Your task to perform on an android device: Clear the cart on amazon. Search for "logitech g pro" on amazon, select the first entry, and add it to the cart. Image 0: 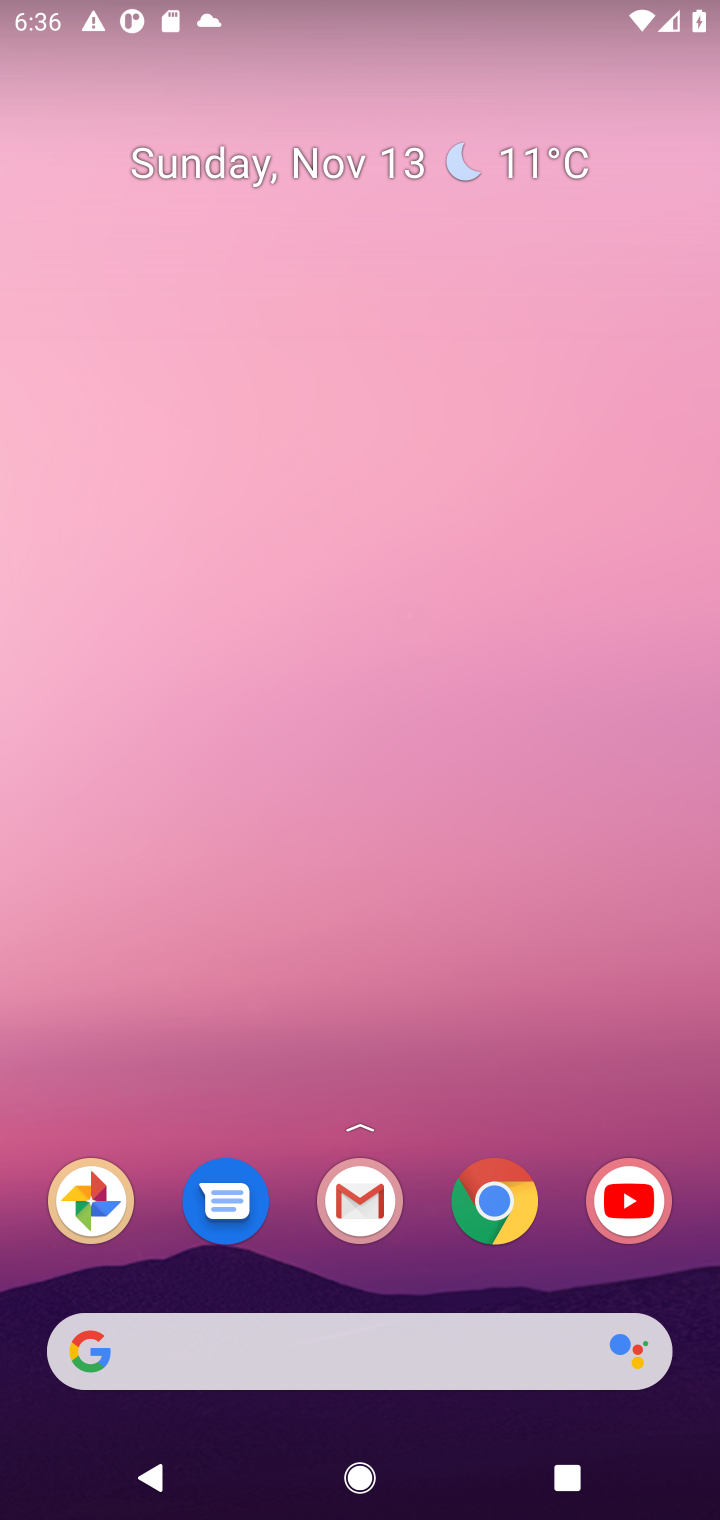
Step 0: drag from (452, 1108) to (507, 20)
Your task to perform on an android device: Clear the cart on amazon. Search for "logitech g pro" on amazon, select the first entry, and add it to the cart. Image 1: 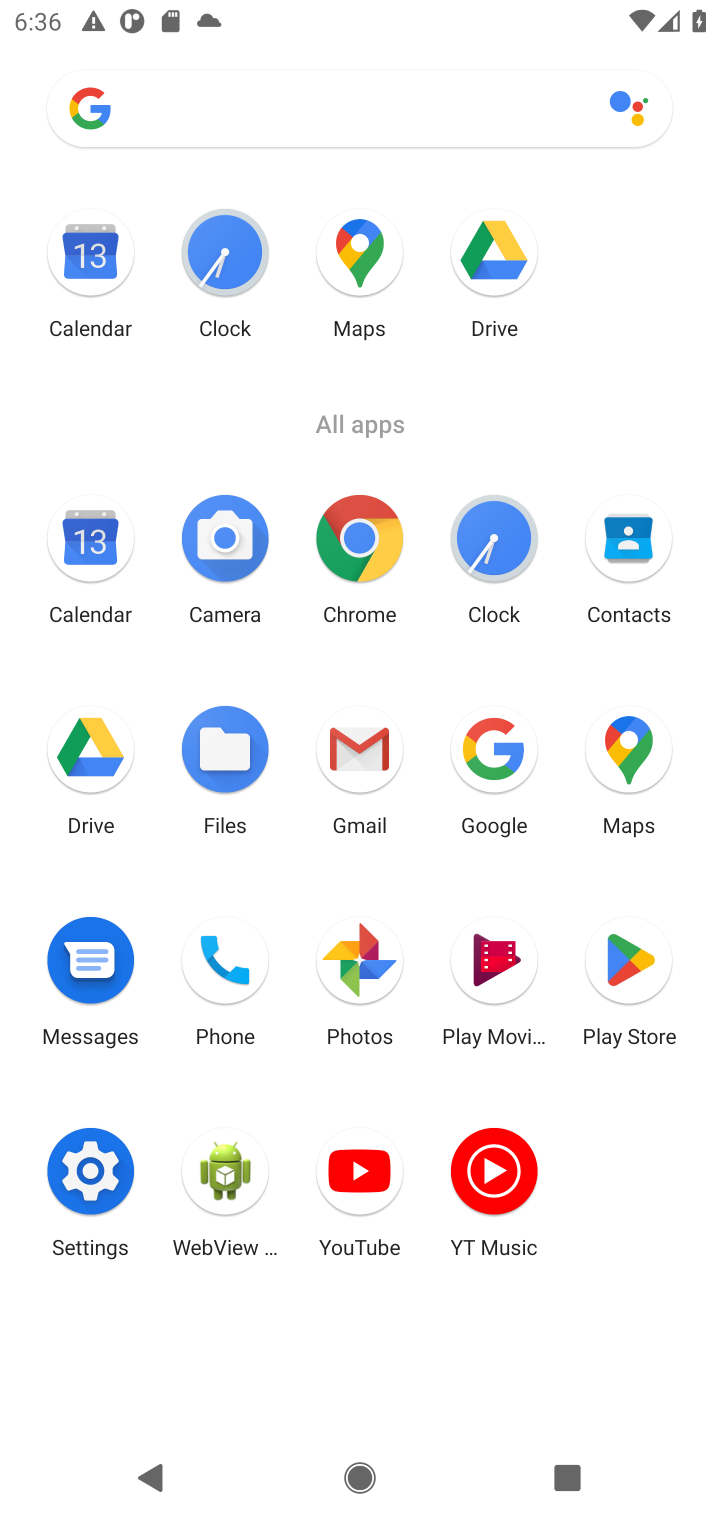
Step 1: click (372, 536)
Your task to perform on an android device: Clear the cart on amazon. Search for "logitech g pro" on amazon, select the first entry, and add it to the cart. Image 2: 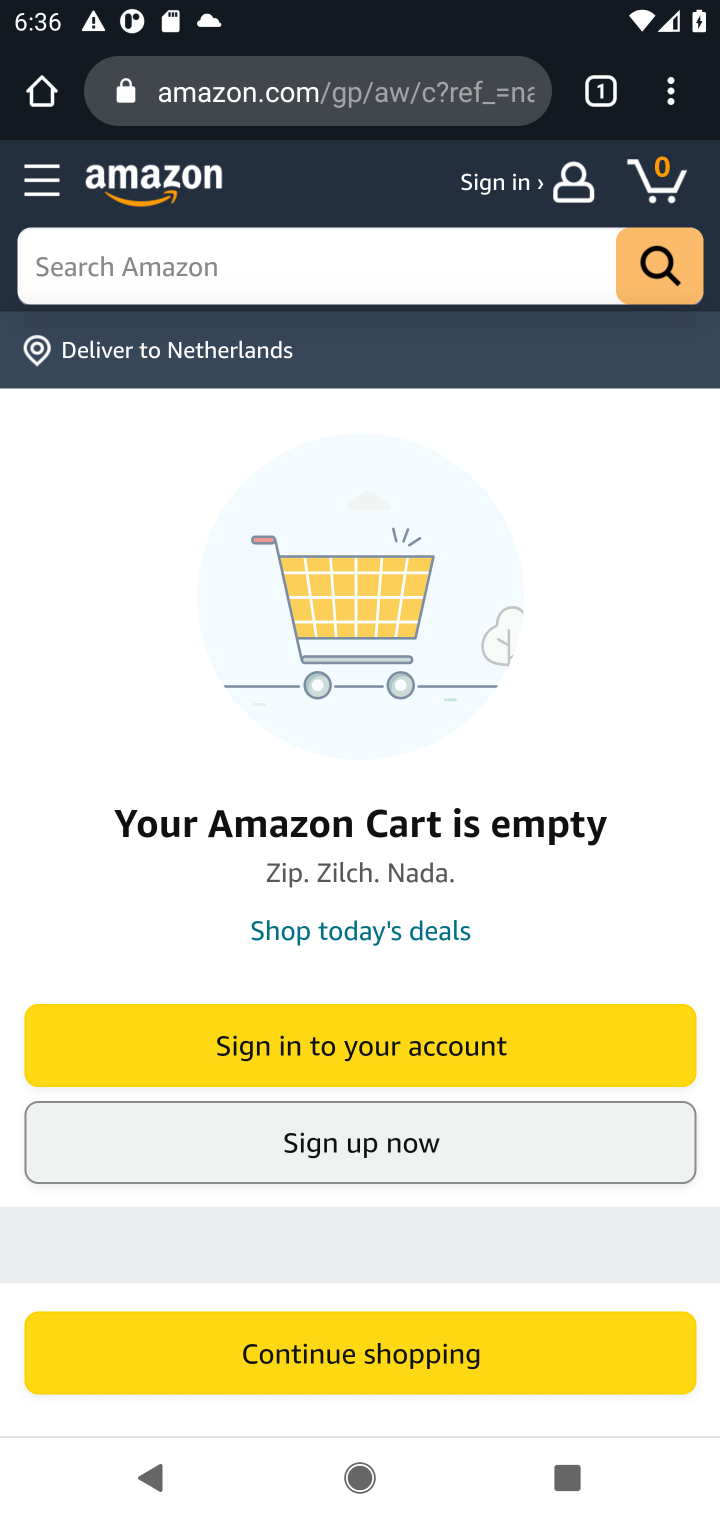
Step 2: click (450, 99)
Your task to perform on an android device: Clear the cart on amazon. Search for "logitech g pro" on amazon, select the first entry, and add it to the cart. Image 3: 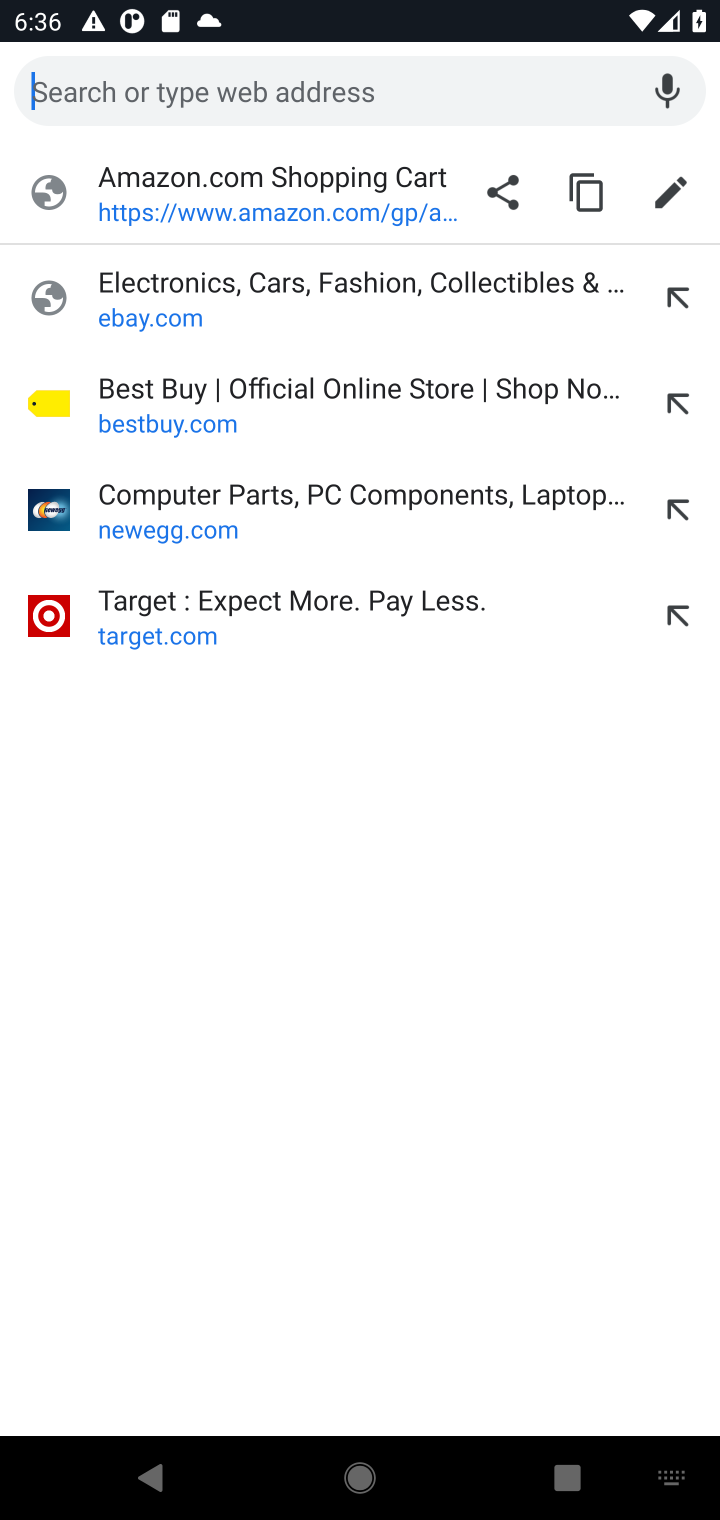
Step 3: type "amazon.com"
Your task to perform on an android device: Clear the cart on amazon. Search for "logitech g pro" on amazon, select the first entry, and add it to the cart. Image 4: 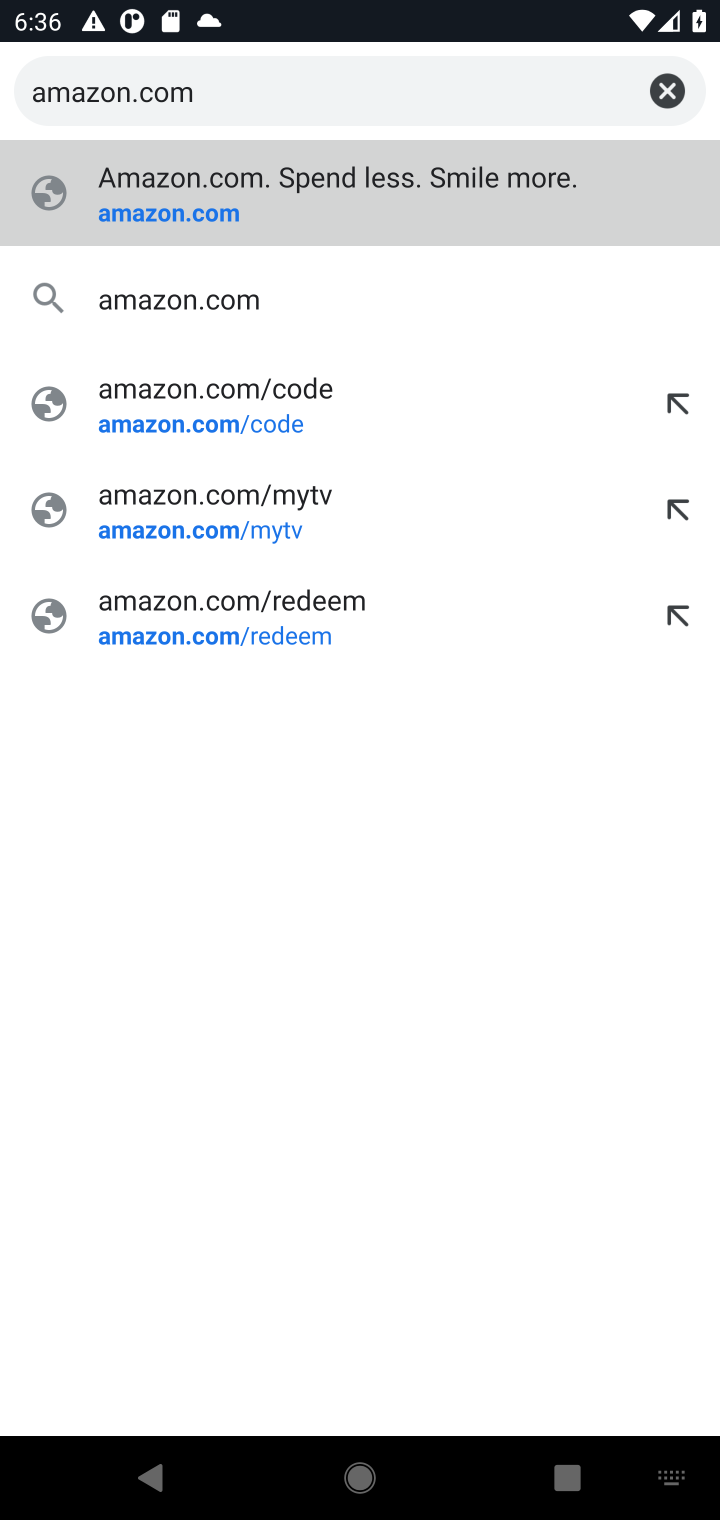
Step 4: press enter
Your task to perform on an android device: Clear the cart on amazon. Search for "logitech g pro" on amazon, select the first entry, and add it to the cart. Image 5: 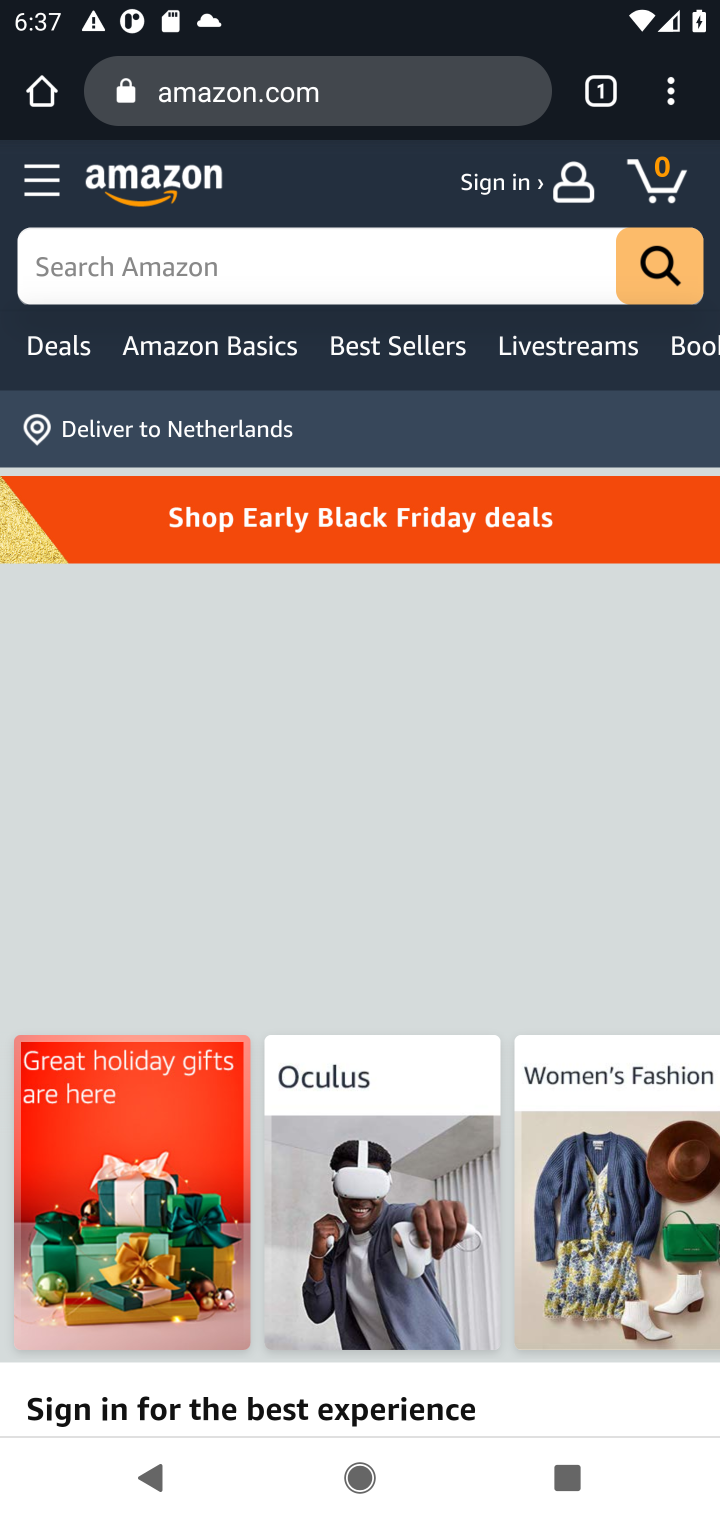
Step 5: click (675, 175)
Your task to perform on an android device: Clear the cart on amazon. Search for "logitech g pro" on amazon, select the first entry, and add it to the cart. Image 6: 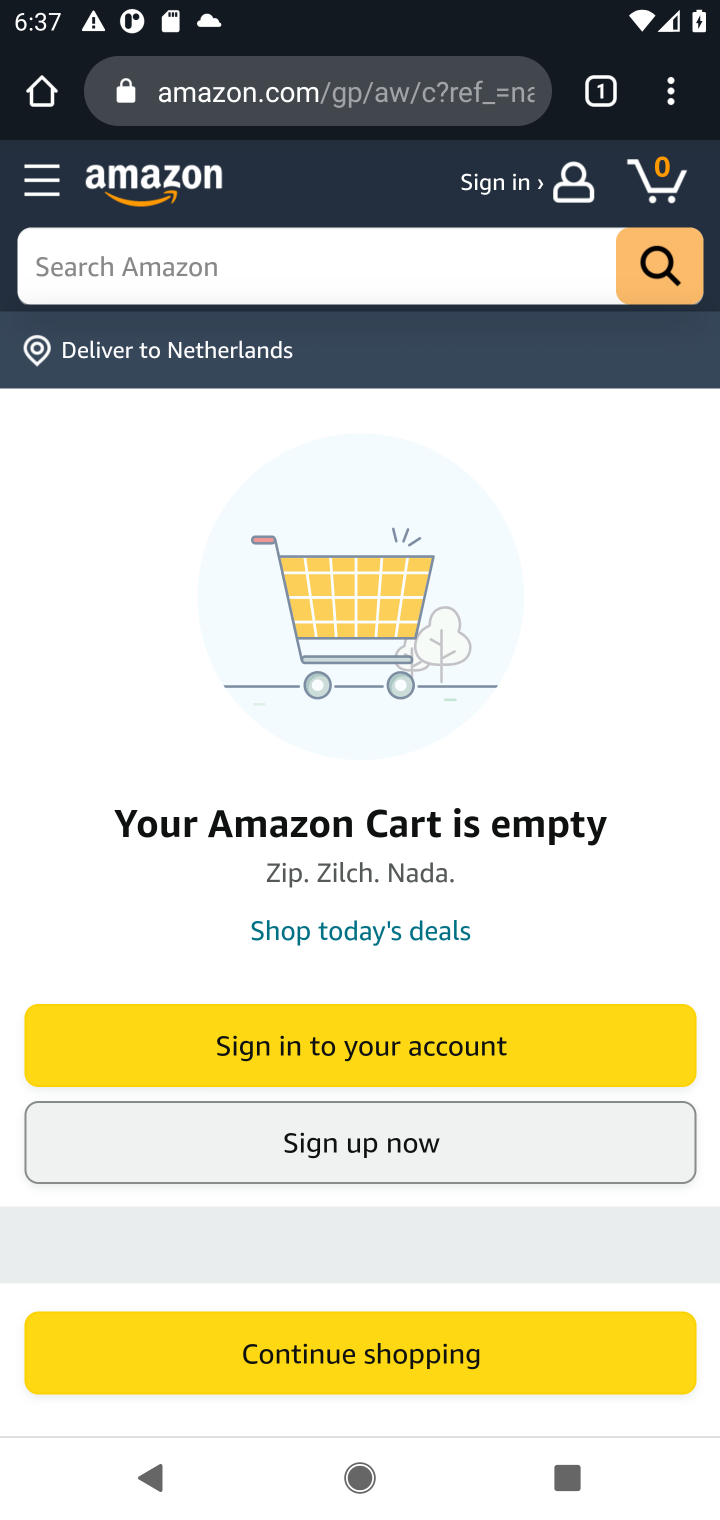
Step 6: click (653, 184)
Your task to perform on an android device: Clear the cart on amazon. Search for "logitech g pro" on amazon, select the first entry, and add it to the cart. Image 7: 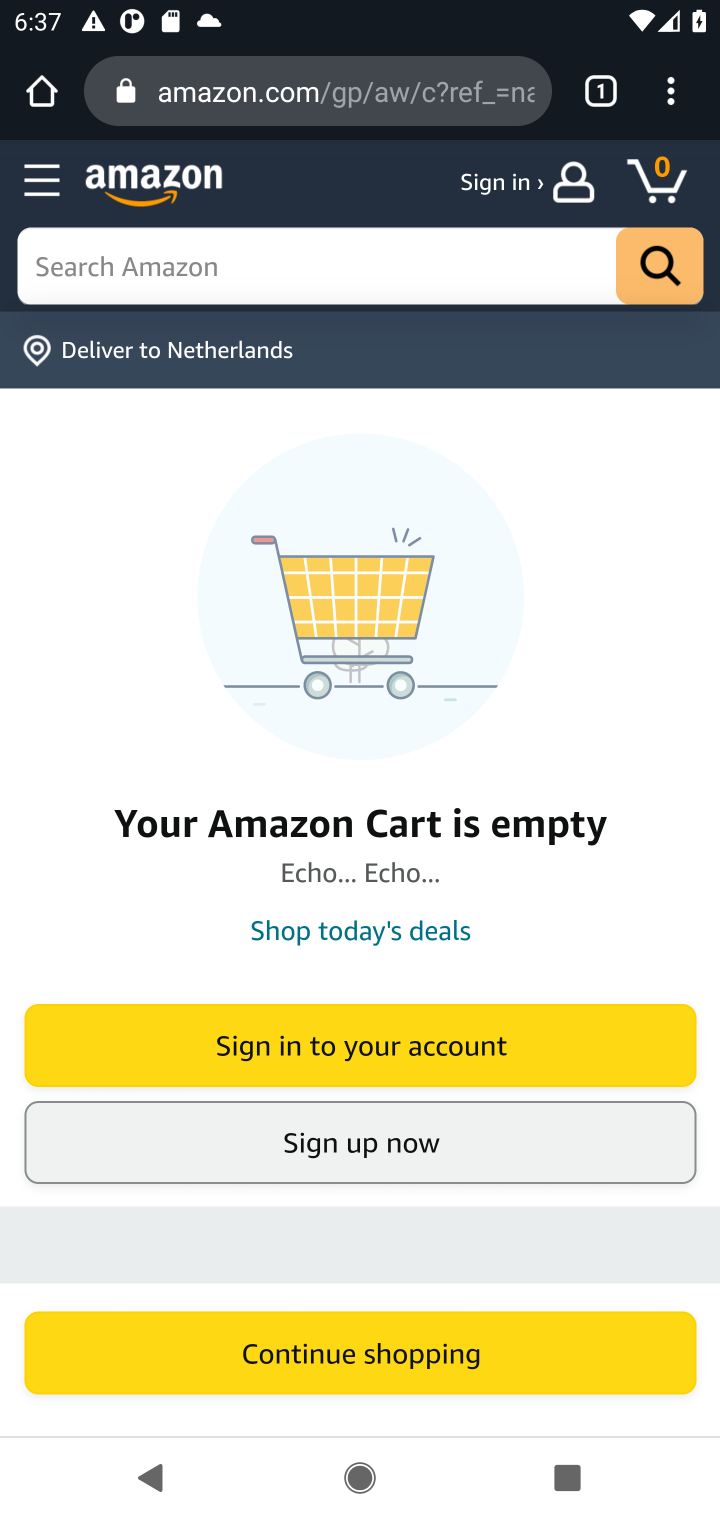
Step 7: click (334, 251)
Your task to perform on an android device: Clear the cart on amazon. Search for "logitech g pro" on amazon, select the first entry, and add it to the cart. Image 8: 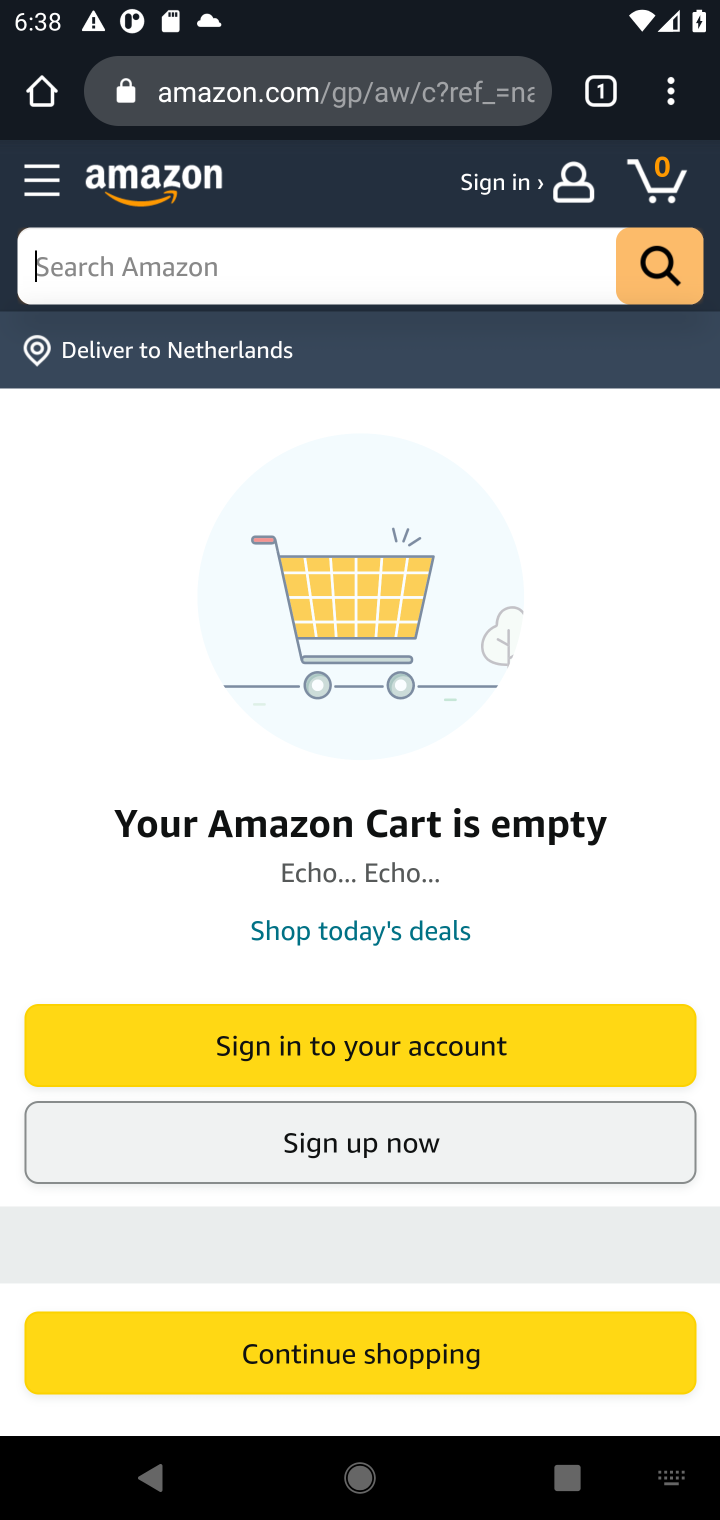
Step 8: type "logitech g pro"
Your task to perform on an android device: Clear the cart on amazon. Search for "logitech g pro" on amazon, select the first entry, and add it to the cart. Image 9: 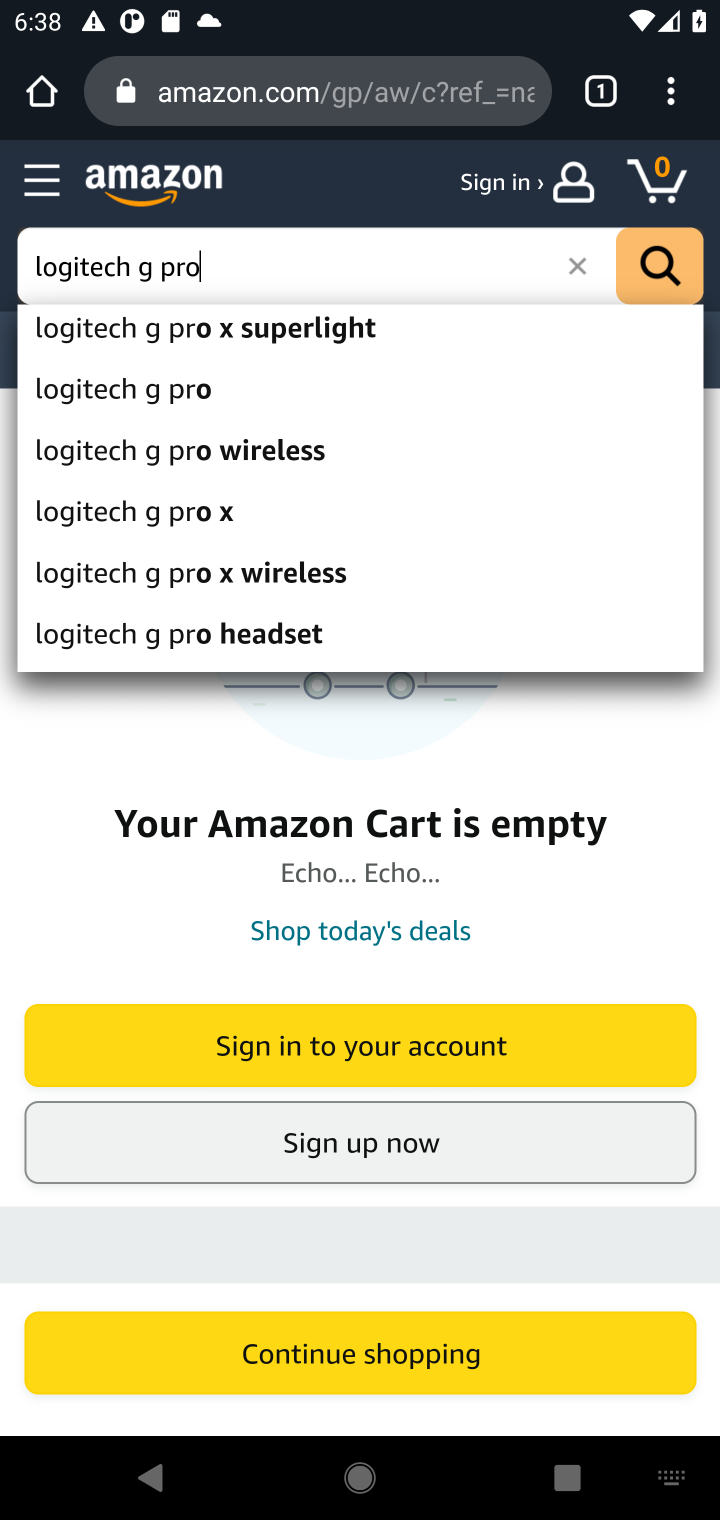
Step 9: press enter
Your task to perform on an android device: Clear the cart on amazon. Search for "logitech g pro" on amazon, select the first entry, and add it to the cart. Image 10: 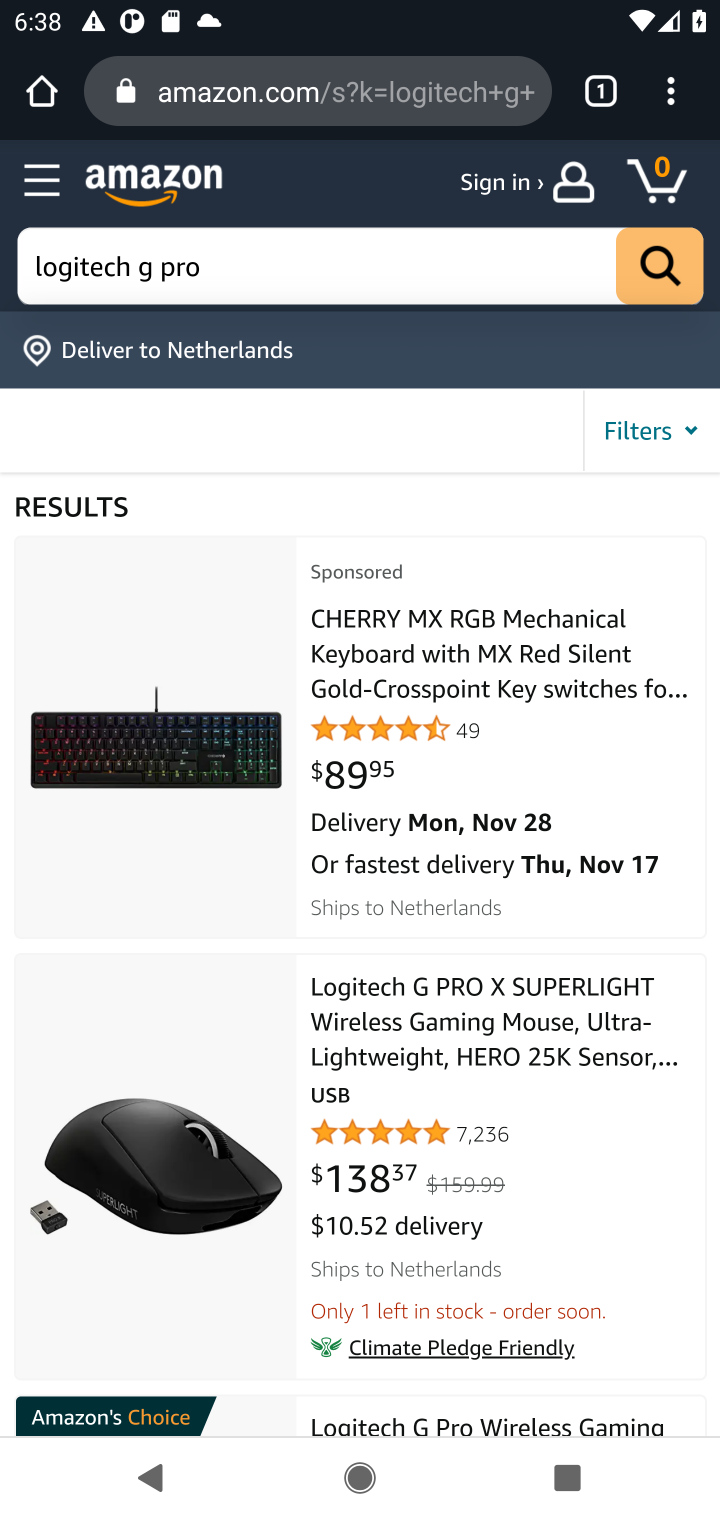
Step 10: click (490, 1004)
Your task to perform on an android device: Clear the cart on amazon. Search for "logitech g pro" on amazon, select the first entry, and add it to the cart. Image 11: 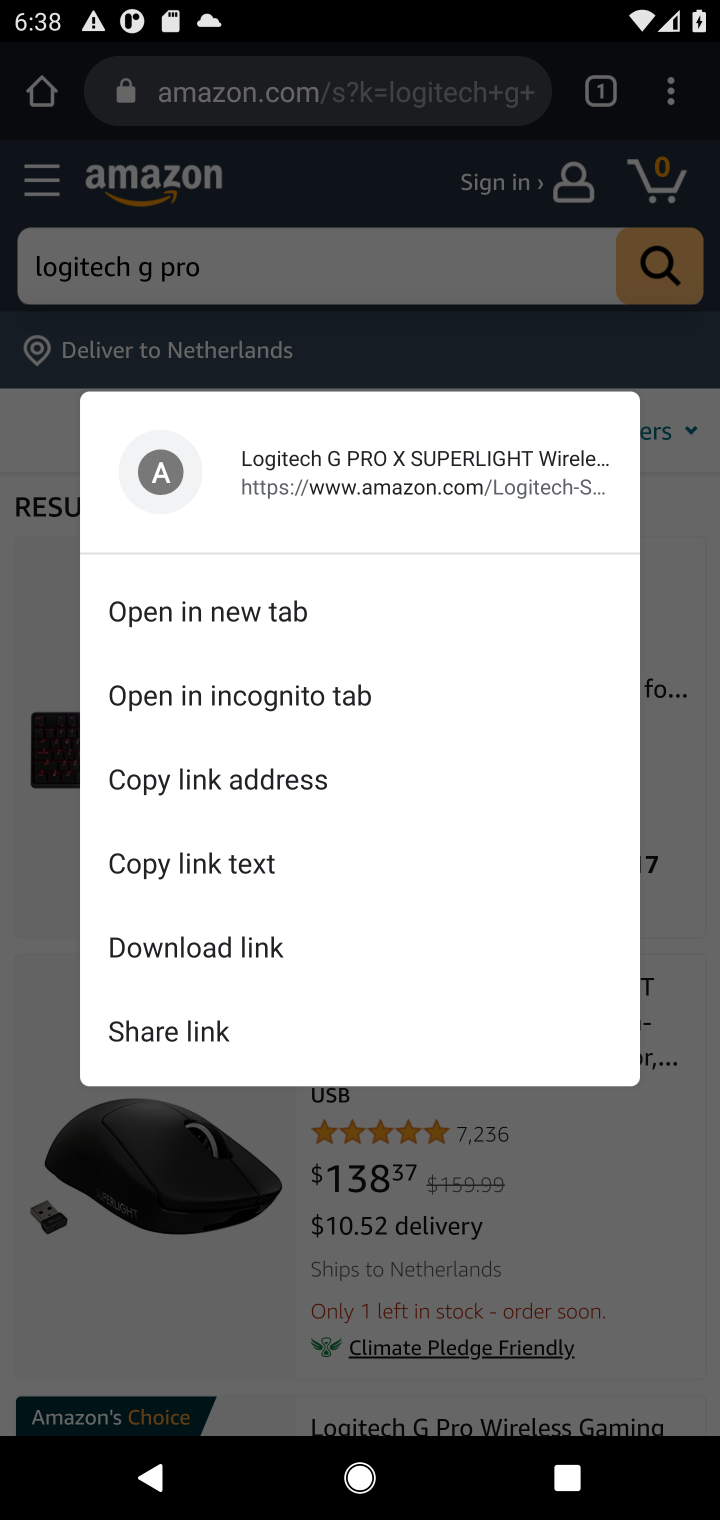
Step 11: click (419, 1173)
Your task to perform on an android device: Clear the cart on amazon. Search for "logitech g pro" on amazon, select the first entry, and add it to the cart. Image 12: 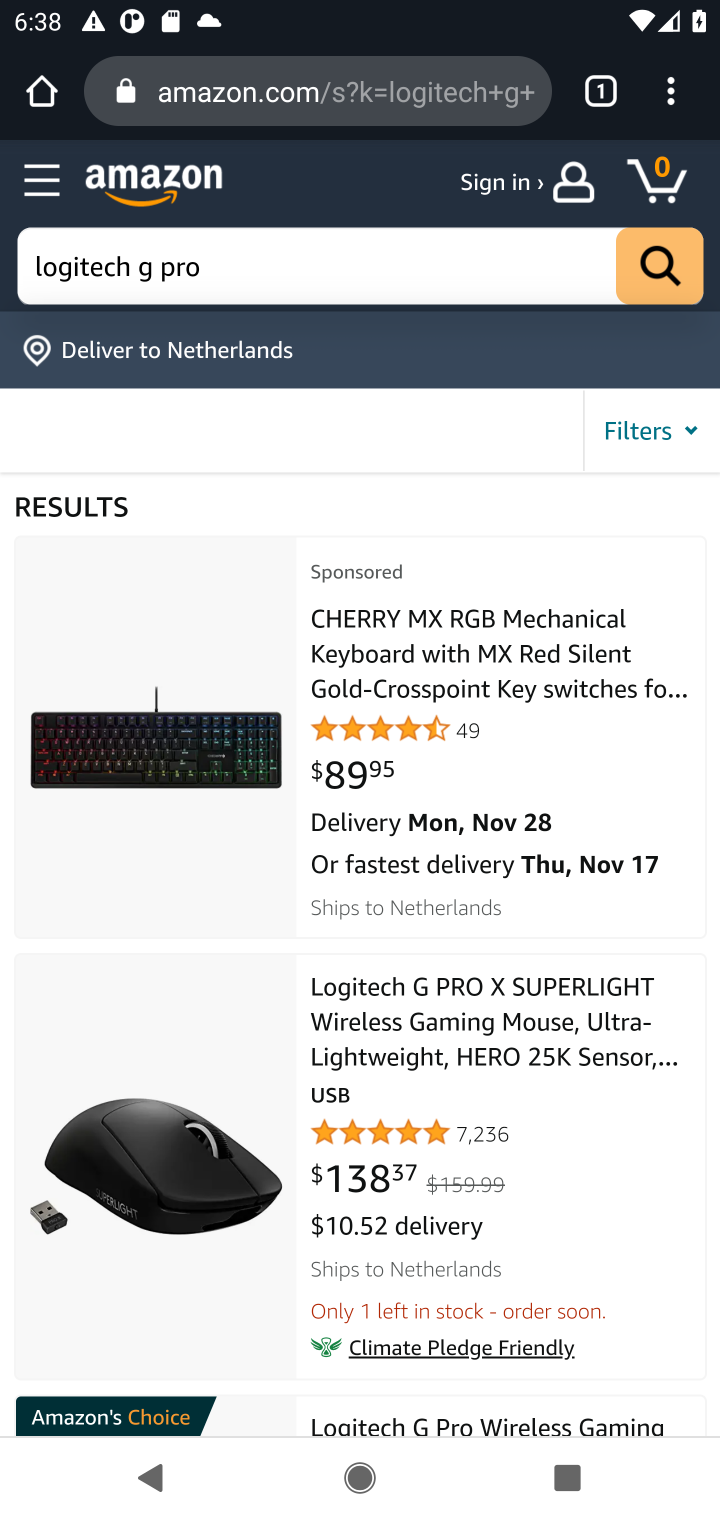
Step 12: click (453, 1036)
Your task to perform on an android device: Clear the cart on amazon. Search for "logitech g pro" on amazon, select the first entry, and add it to the cart. Image 13: 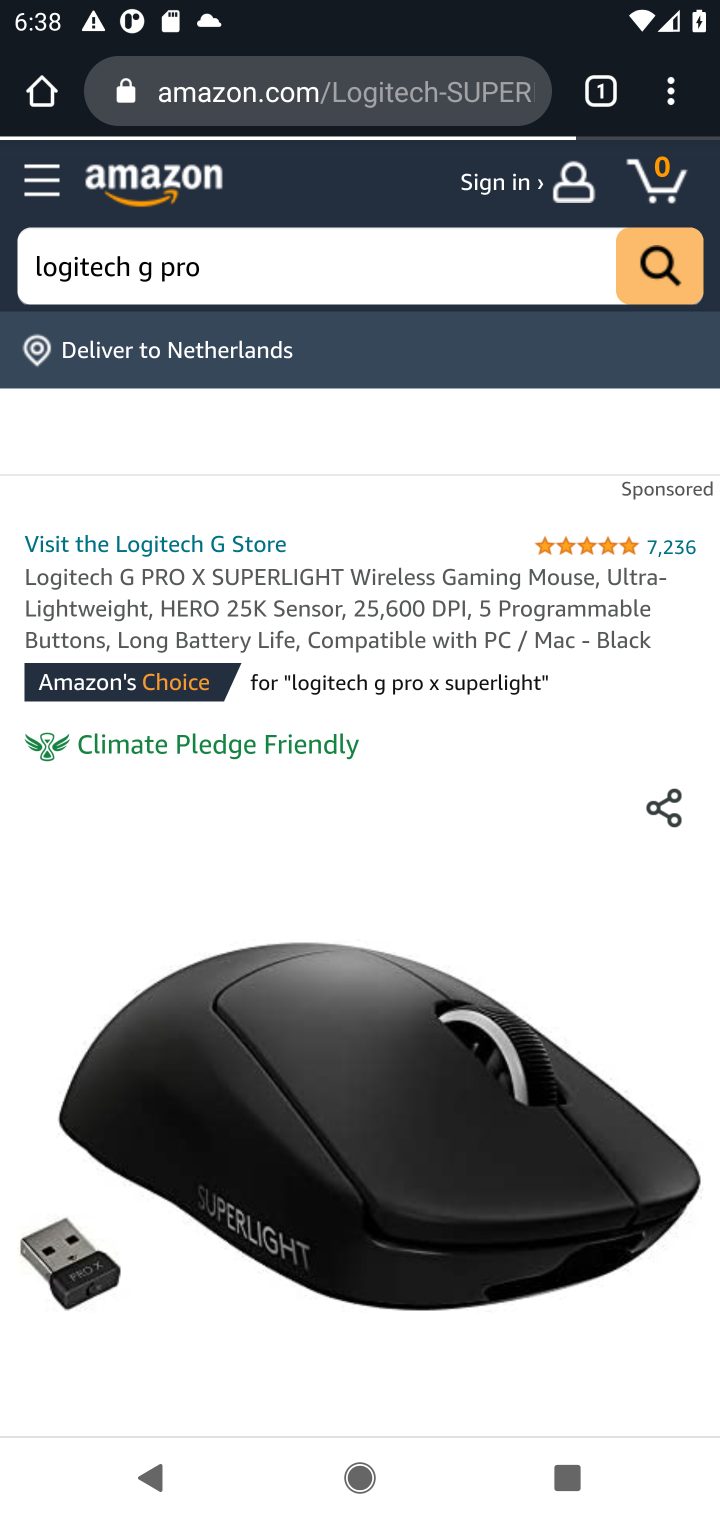
Step 13: drag from (343, 1010) to (367, 370)
Your task to perform on an android device: Clear the cart on amazon. Search for "logitech g pro" on amazon, select the first entry, and add it to the cart. Image 14: 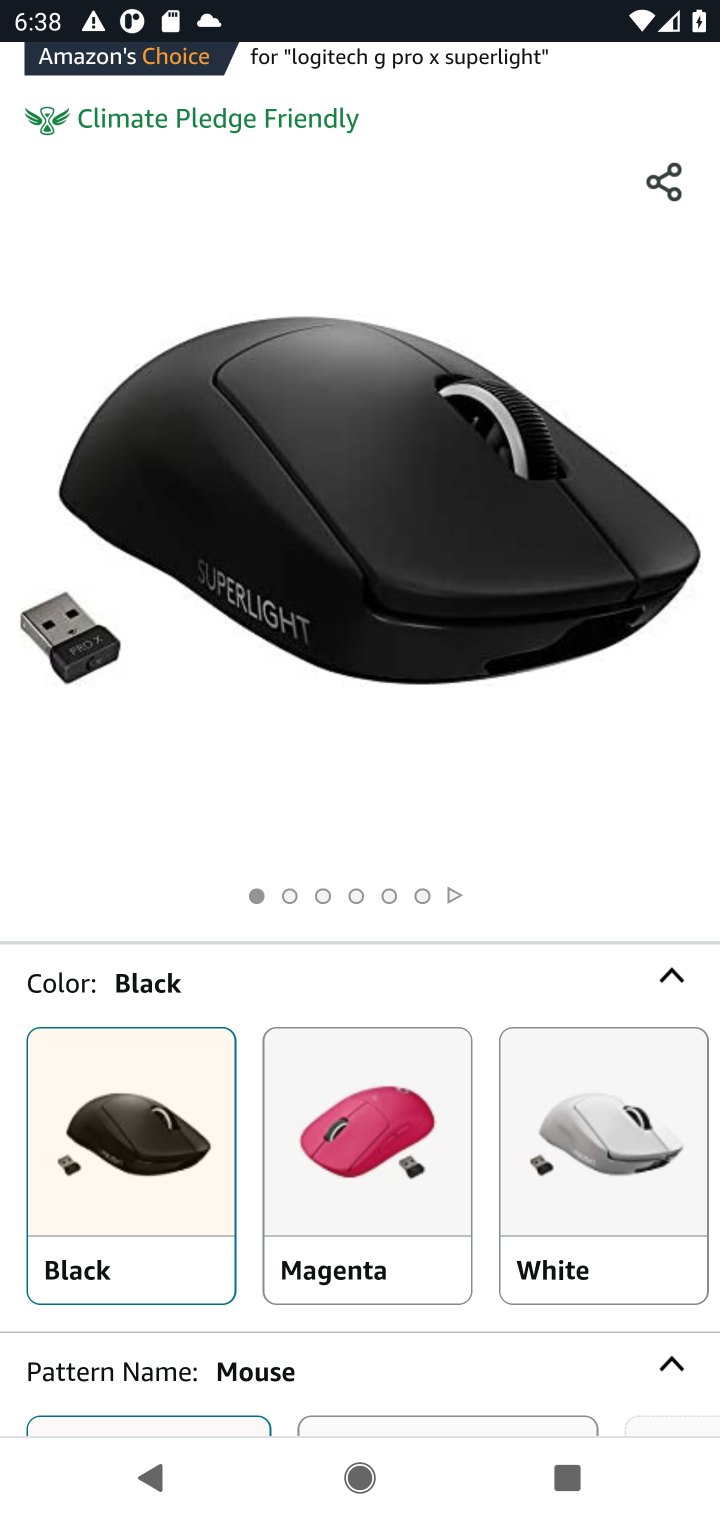
Step 14: drag from (263, 1231) to (341, 811)
Your task to perform on an android device: Clear the cart on amazon. Search for "logitech g pro" on amazon, select the first entry, and add it to the cart. Image 15: 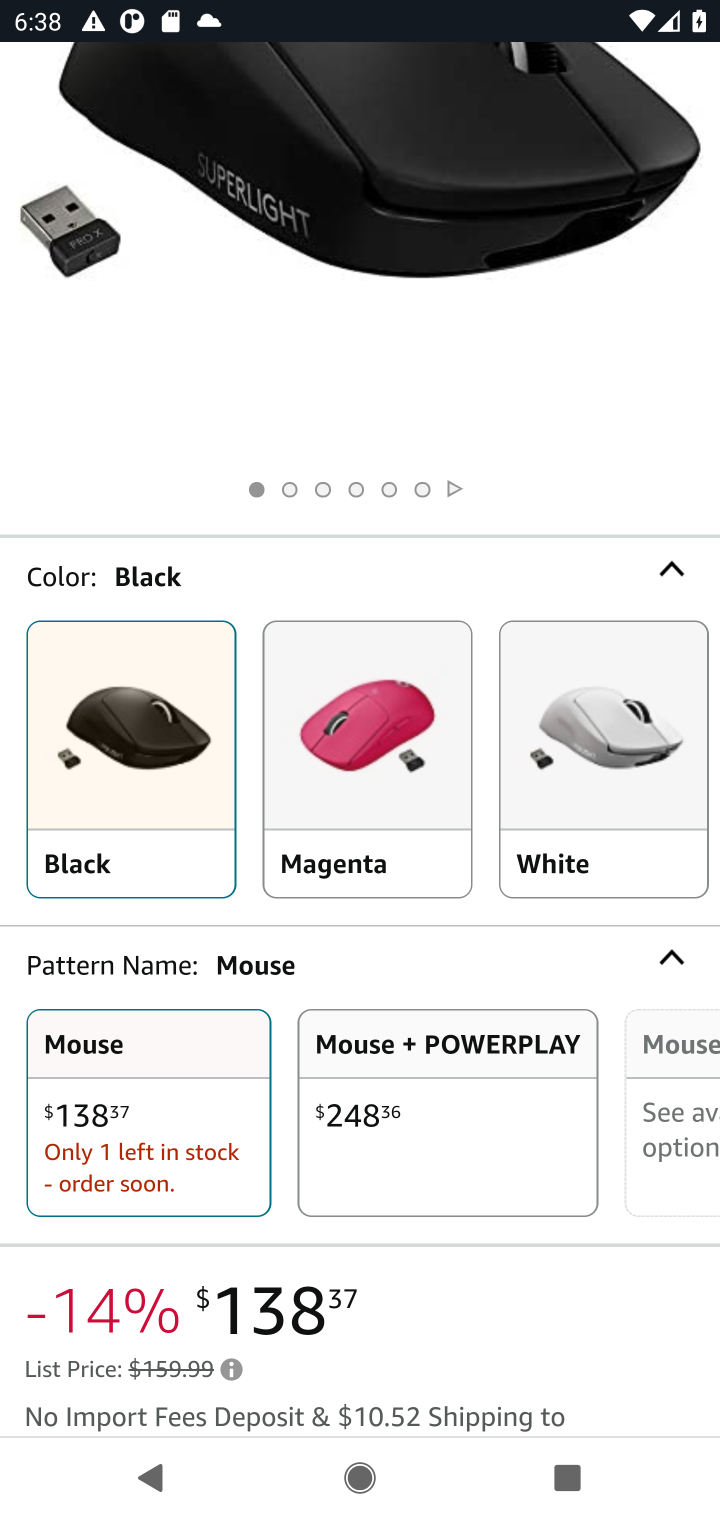
Step 15: drag from (443, 1358) to (514, 645)
Your task to perform on an android device: Clear the cart on amazon. Search for "logitech g pro" on amazon, select the first entry, and add it to the cart. Image 16: 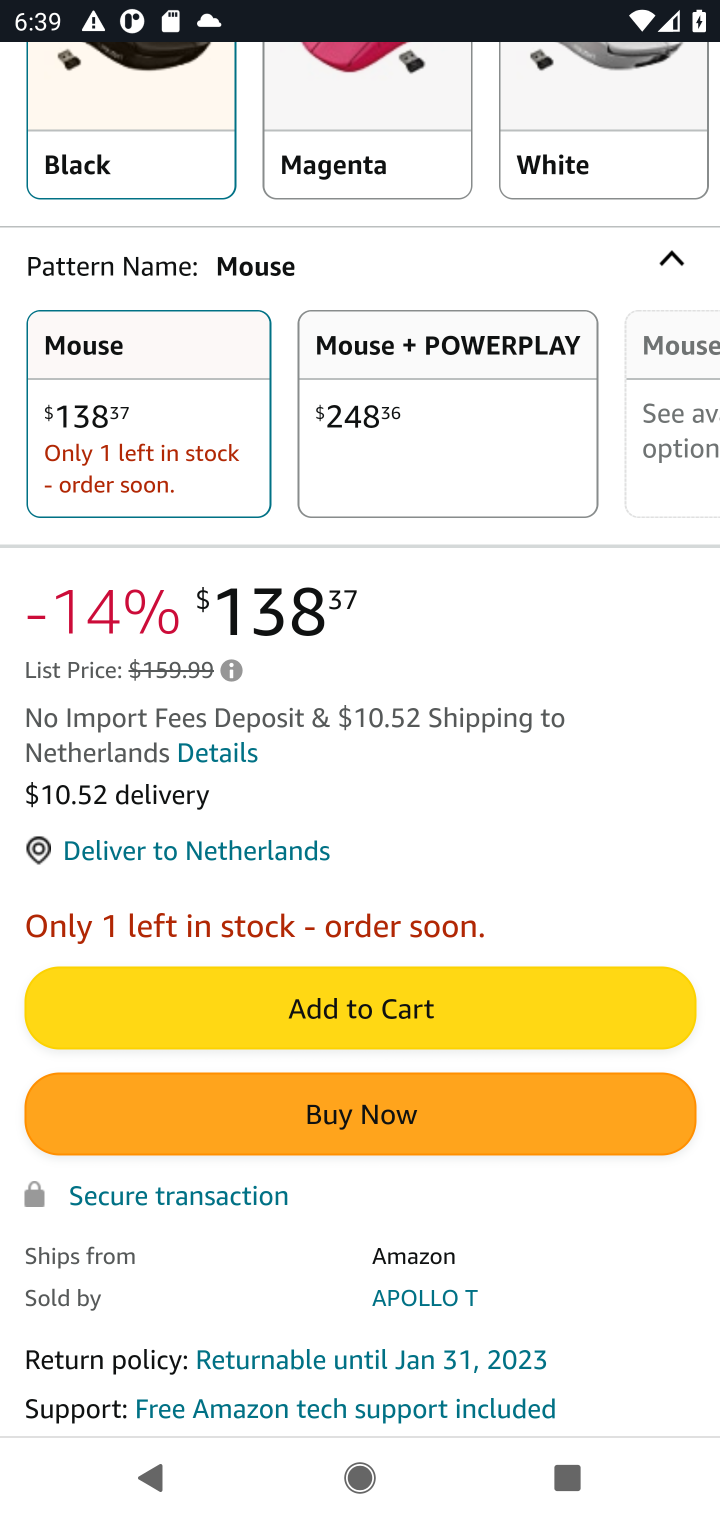
Step 16: drag from (468, 285) to (328, 1506)
Your task to perform on an android device: Clear the cart on amazon. Search for "logitech g pro" on amazon, select the first entry, and add it to the cart. Image 17: 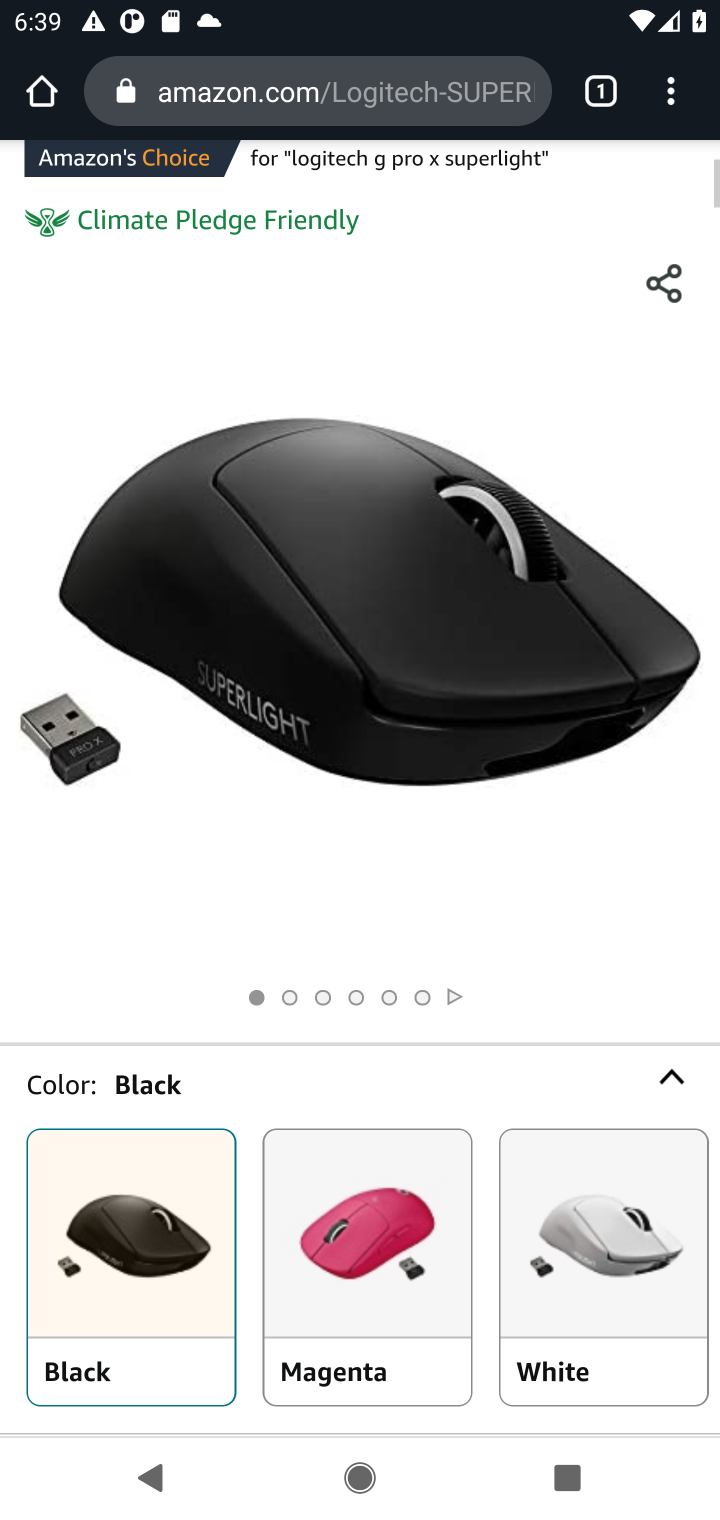
Step 17: drag from (493, 303) to (382, 1514)
Your task to perform on an android device: Clear the cart on amazon. Search for "logitech g pro" on amazon, select the first entry, and add it to the cart. Image 18: 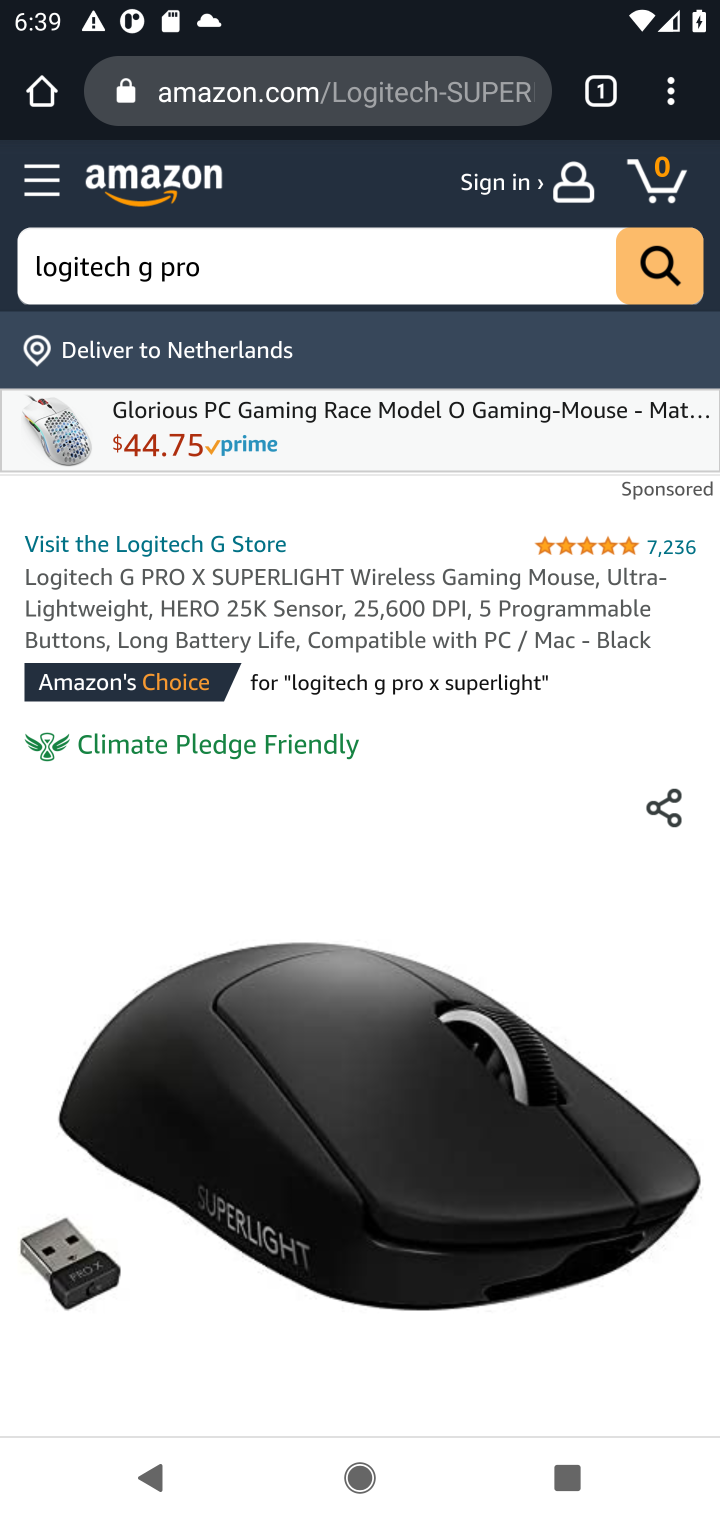
Step 18: drag from (406, 798) to (556, 0)
Your task to perform on an android device: Clear the cart on amazon. Search for "logitech g pro" on amazon, select the first entry, and add it to the cart. Image 19: 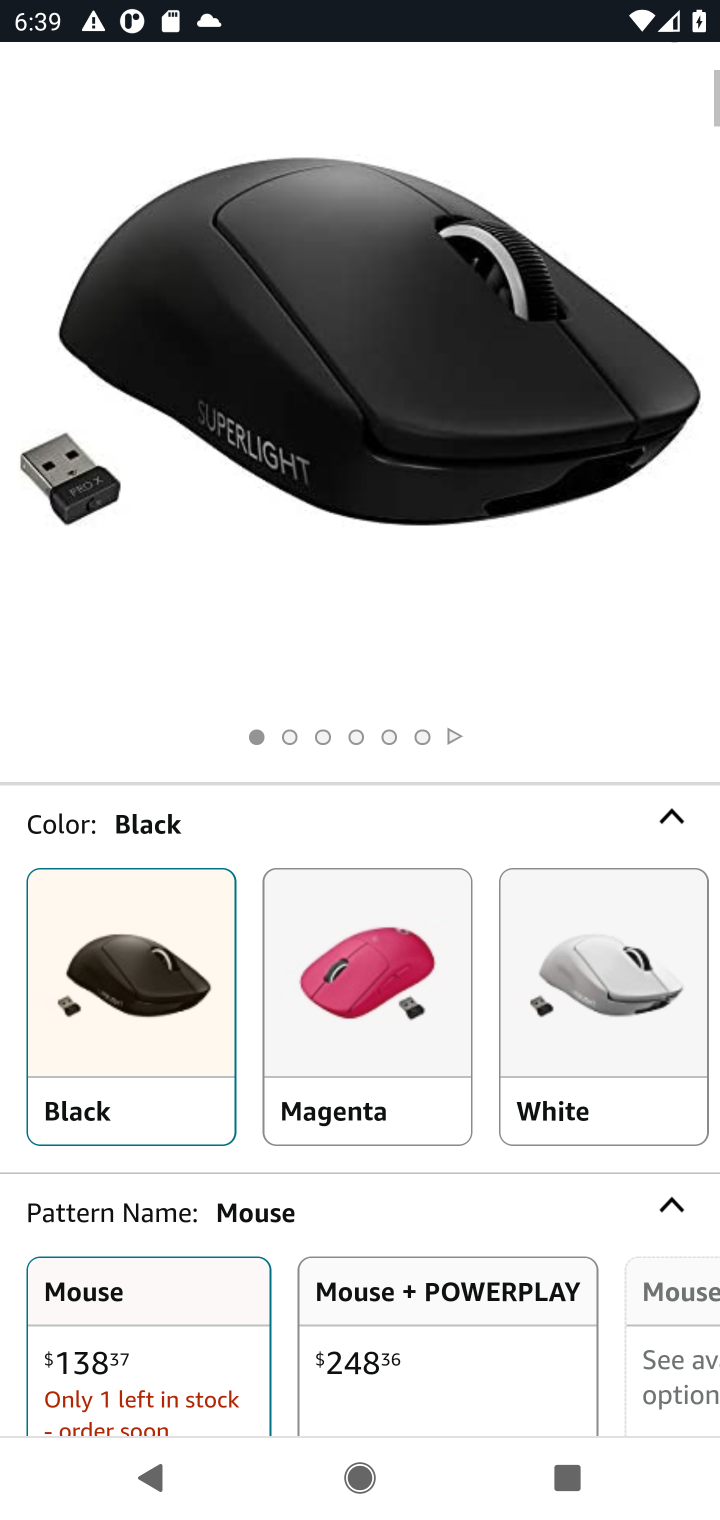
Step 19: drag from (388, 946) to (494, 158)
Your task to perform on an android device: Clear the cart on amazon. Search for "logitech g pro" on amazon, select the first entry, and add it to the cart. Image 20: 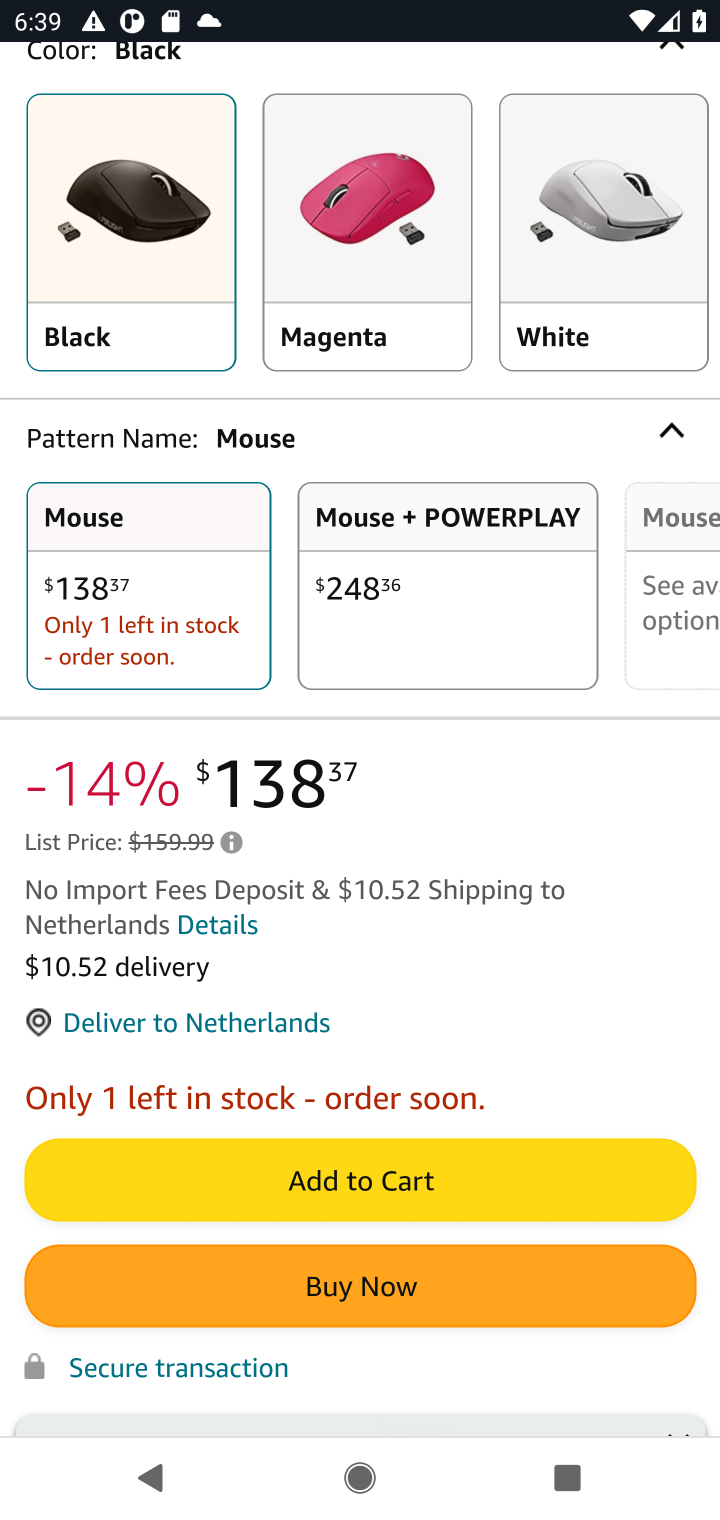
Step 20: click (329, 1174)
Your task to perform on an android device: Clear the cart on amazon. Search for "logitech g pro" on amazon, select the first entry, and add it to the cart. Image 21: 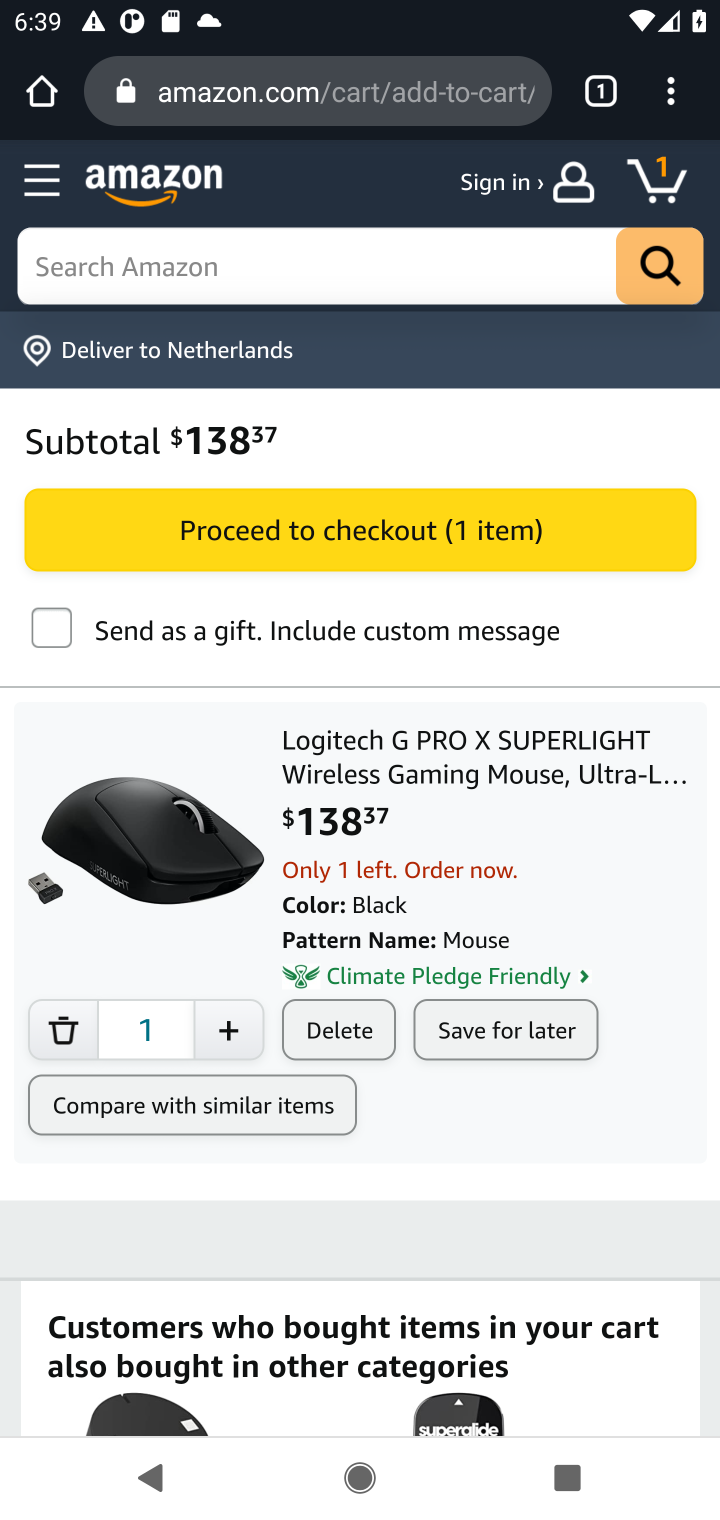
Step 21: task complete